Your task to perform on an android device: toggle pop-ups in chrome Image 0: 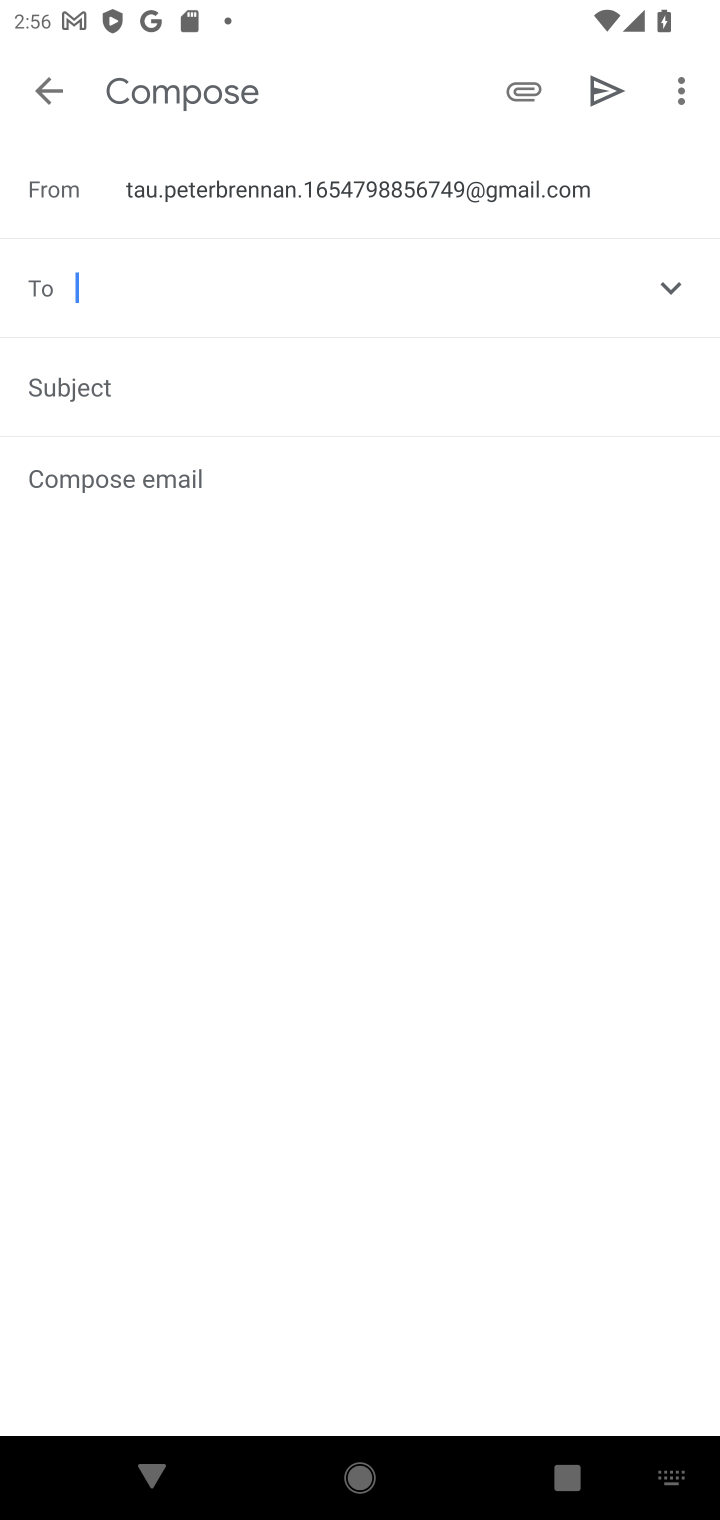
Step 0: task complete